Your task to perform on an android device: Open display settings Image 0: 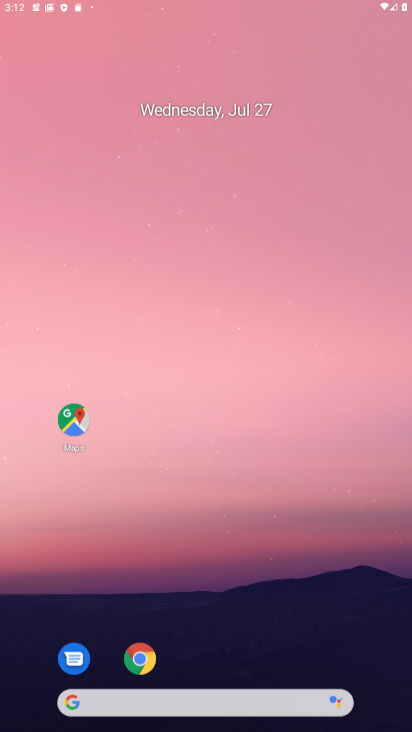
Step 0: click (162, 114)
Your task to perform on an android device: Open display settings Image 1: 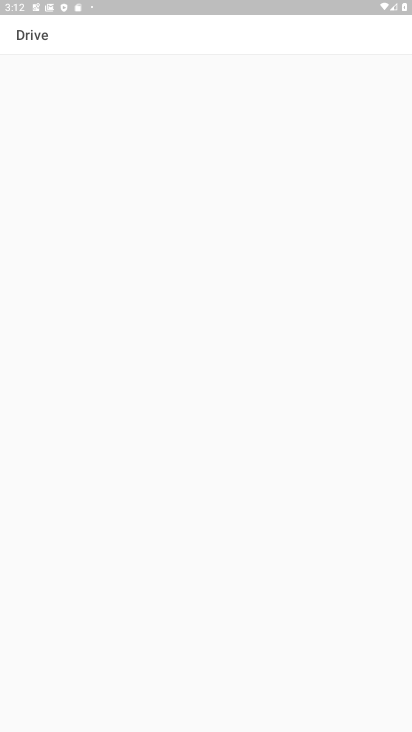
Step 1: press home button
Your task to perform on an android device: Open display settings Image 2: 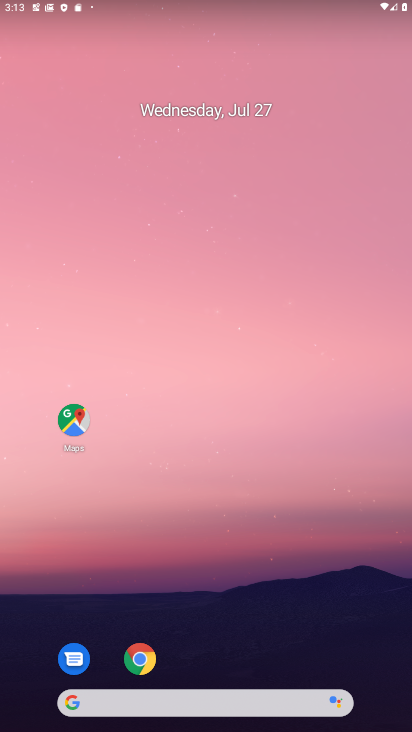
Step 2: drag from (240, 603) to (265, 350)
Your task to perform on an android device: Open display settings Image 3: 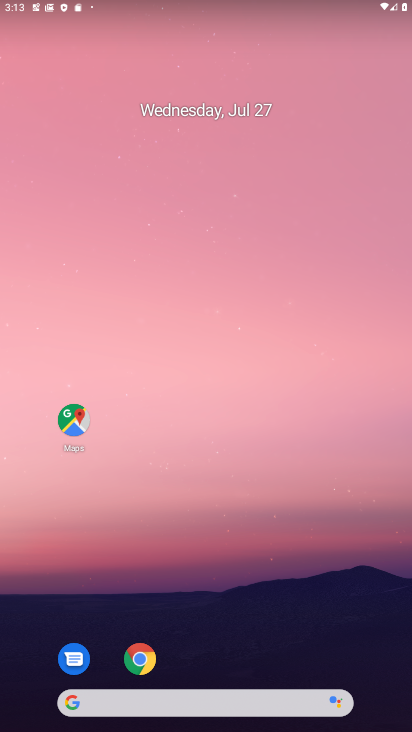
Step 3: drag from (183, 698) to (218, 353)
Your task to perform on an android device: Open display settings Image 4: 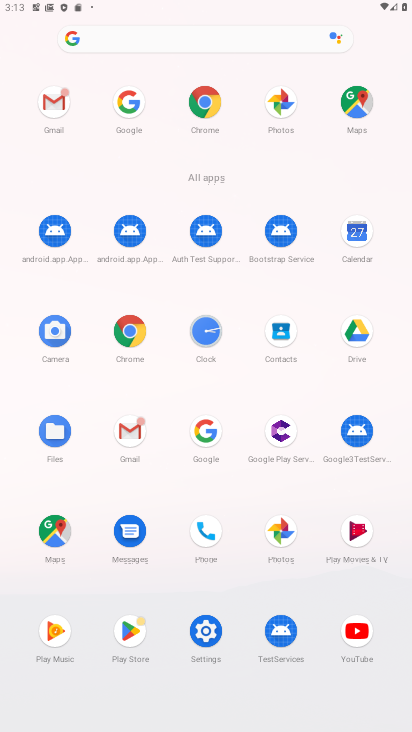
Step 4: click (202, 622)
Your task to perform on an android device: Open display settings Image 5: 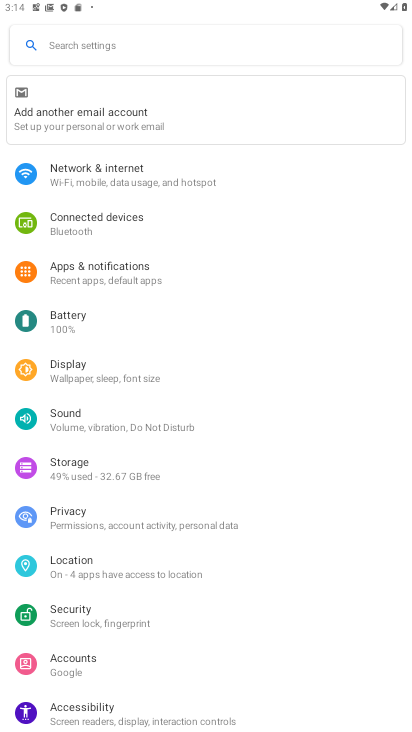
Step 5: click (65, 359)
Your task to perform on an android device: Open display settings Image 6: 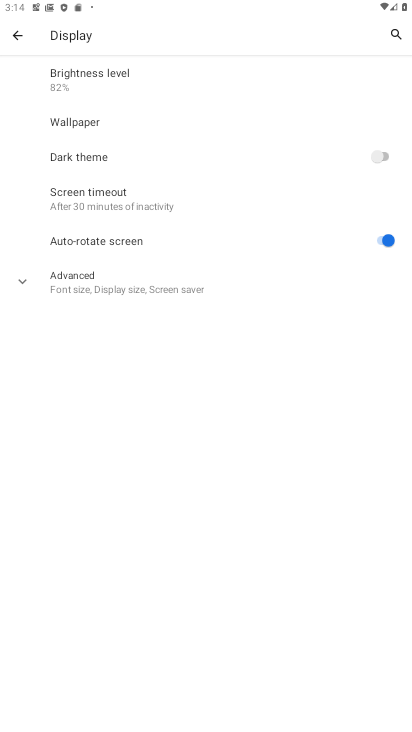
Step 6: click (97, 283)
Your task to perform on an android device: Open display settings Image 7: 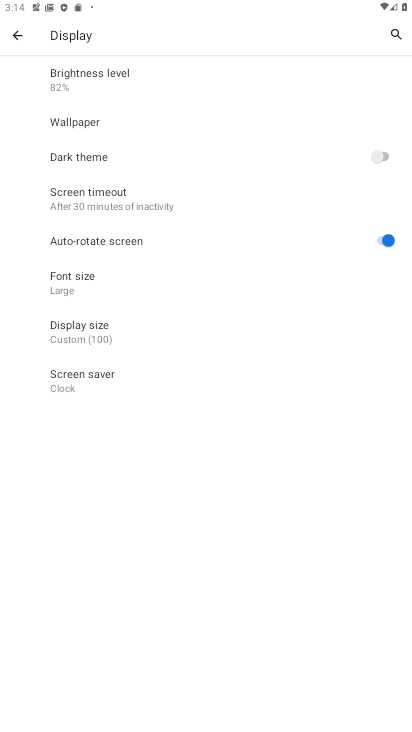
Step 7: task complete